Your task to perform on an android device: turn off improve location accuracy Image 0: 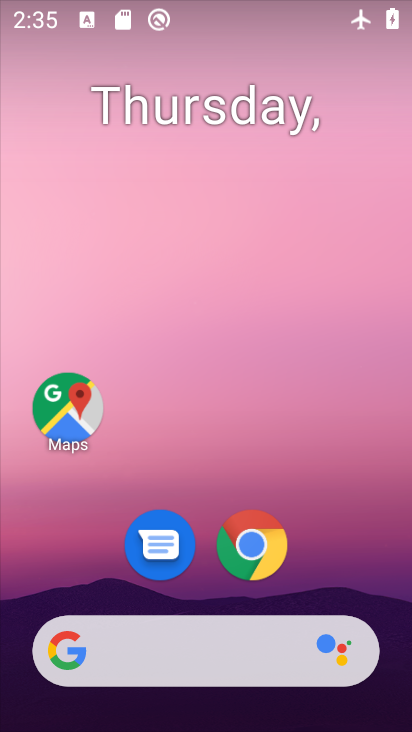
Step 0: click (71, 391)
Your task to perform on an android device: turn off improve location accuracy Image 1: 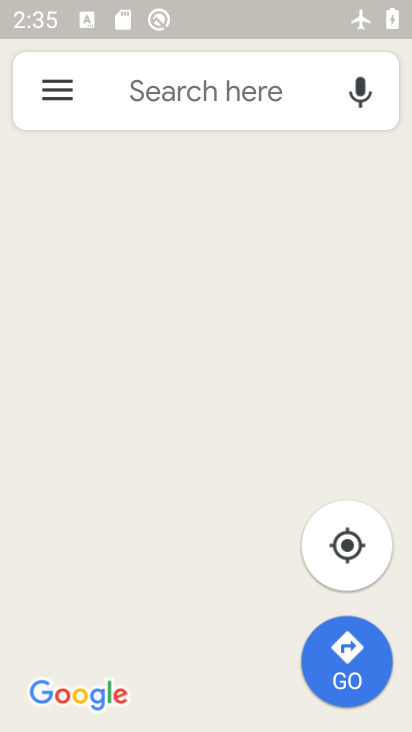
Step 1: click (43, 91)
Your task to perform on an android device: turn off improve location accuracy Image 2: 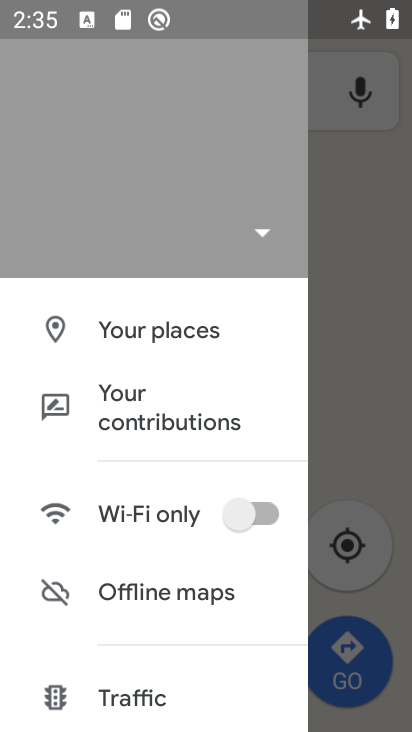
Step 2: drag from (144, 604) to (117, 130)
Your task to perform on an android device: turn off improve location accuracy Image 3: 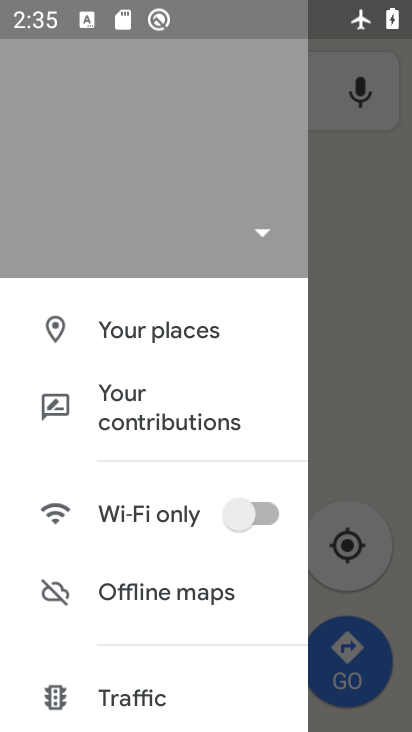
Step 3: drag from (211, 677) to (202, 106)
Your task to perform on an android device: turn off improve location accuracy Image 4: 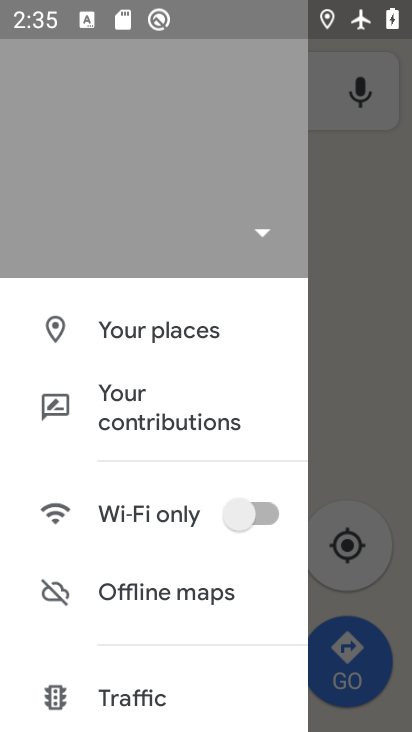
Step 4: drag from (244, 685) to (209, 3)
Your task to perform on an android device: turn off improve location accuracy Image 5: 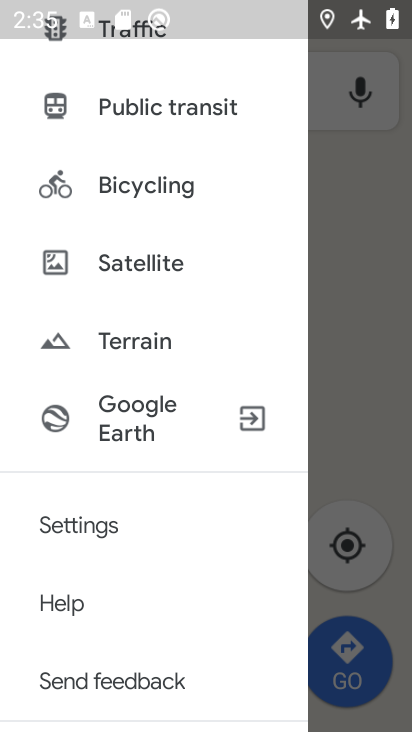
Step 5: click (85, 516)
Your task to perform on an android device: turn off improve location accuracy Image 6: 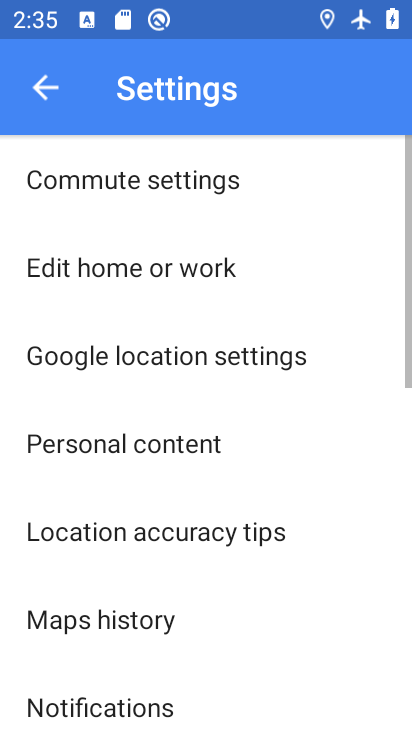
Step 6: click (158, 355)
Your task to perform on an android device: turn off improve location accuracy Image 7: 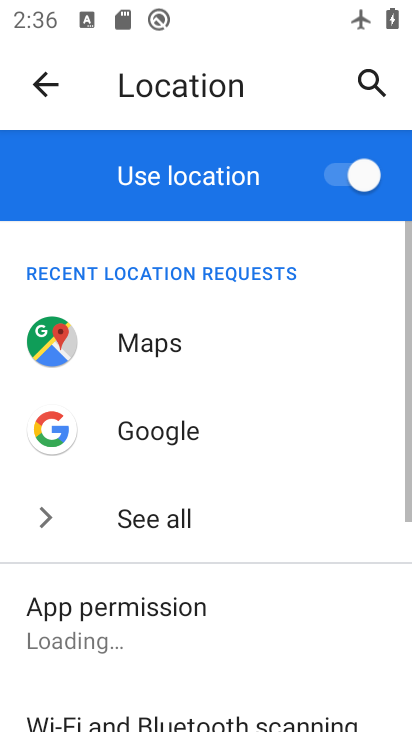
Step 7: drag from (257, 643) to (199, 126)
Your task to perform on an android device: turn off improve location accuracy Image 8: 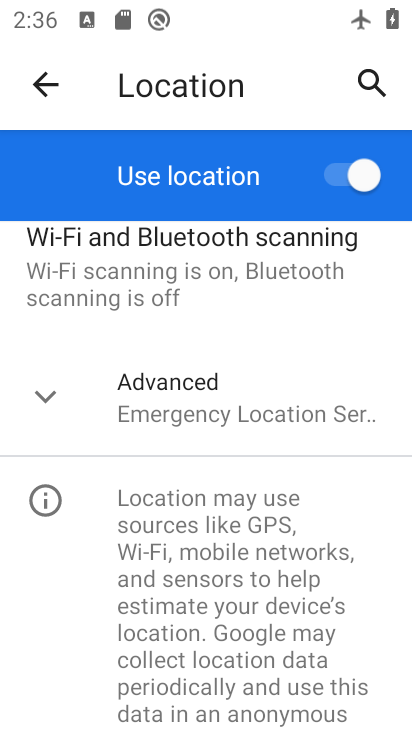
Step 8: click (275, 405)
Your task to perform on an android device: turn off improve location accuracy Image 9: 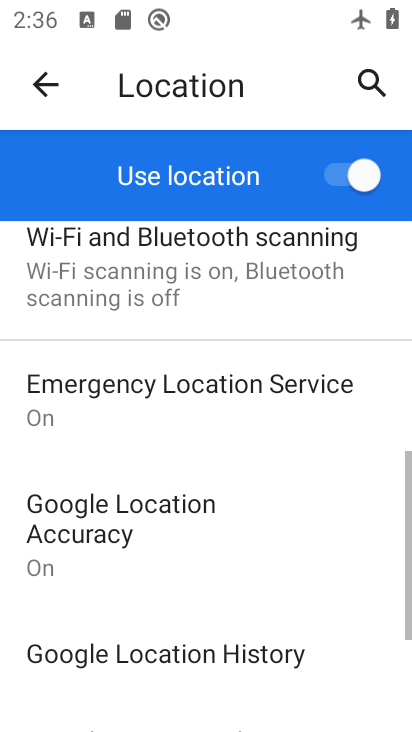
Step 9: drag from (199, 579) to (193, 184)
Your task to perform on an android device: turn off improve location accuracy Image 10: 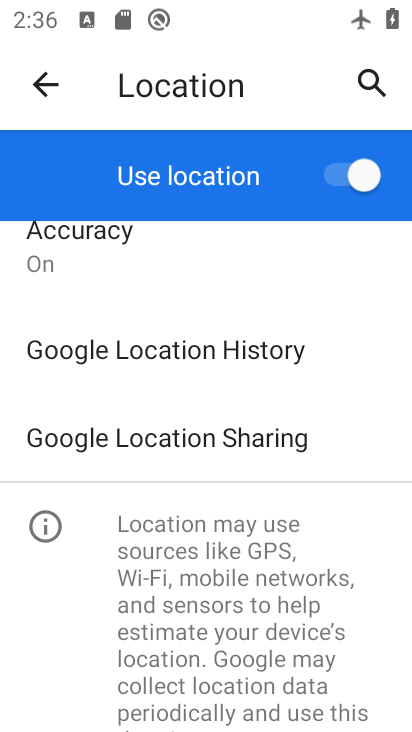
Step 10: drag from (244, 317) to (266, 474)
Your task to perform on an android device: turn off improve location accuracy Image 11: 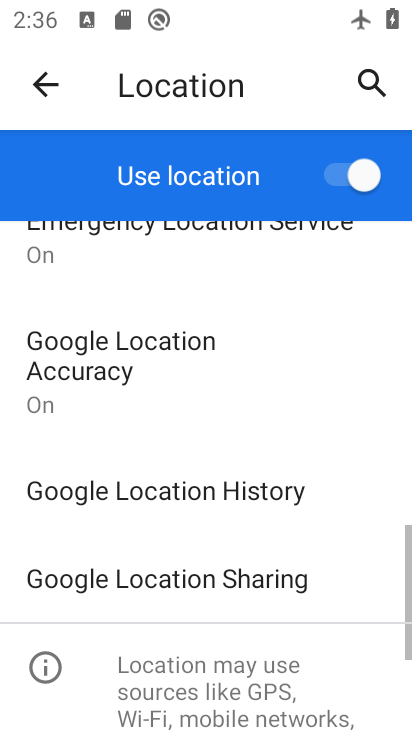
Step 11: click (78, 356)
Your task to perform on an android device: turn off improve location accuracy Image 12: 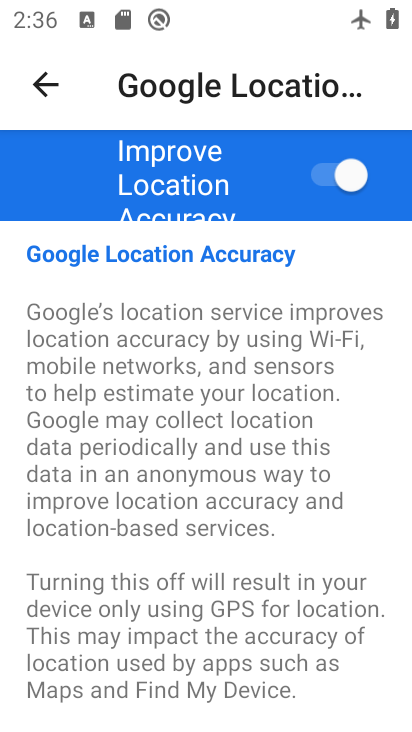
Step 12: click (349, 176)
Your task to perform on an android device: turn off improve location accuracy Image 13: 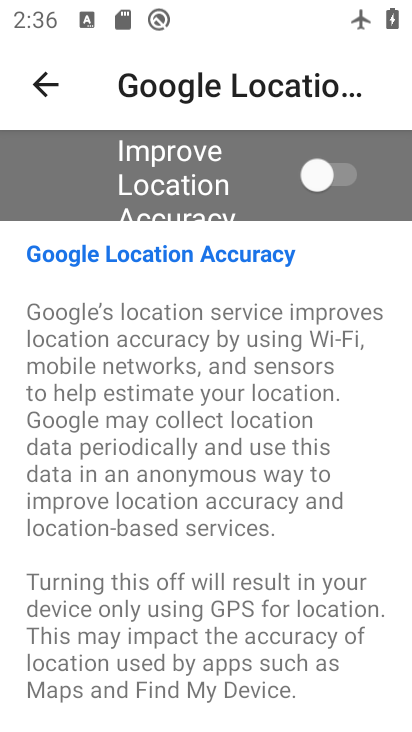
Step 13: task complete